Your task to perform on an android device: Check the weather Image 0: 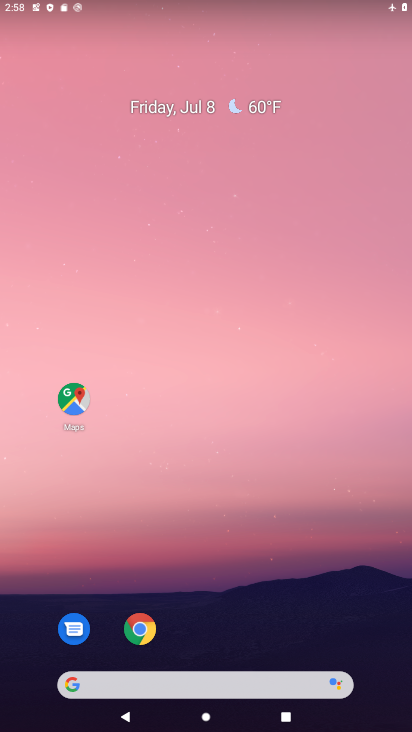
Step 0: drag from (201, 644) to (204, 273)
Your task to perform on an android device: Check the weather Image 1: 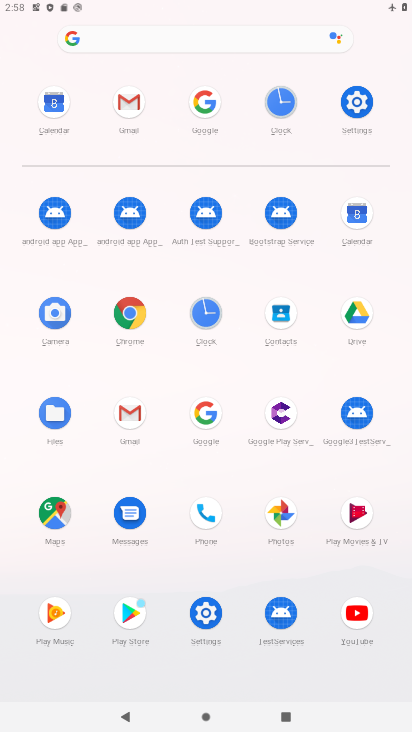
Step 1: click (210, 420)
Your task to perform on an android device: Check the weather Image 2: 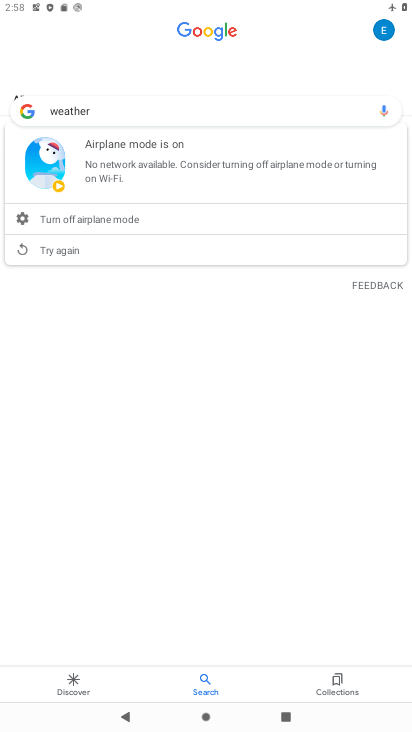
Step 2: task complete